Your task to perform on an android device: create a new album in the google photos Image 0: 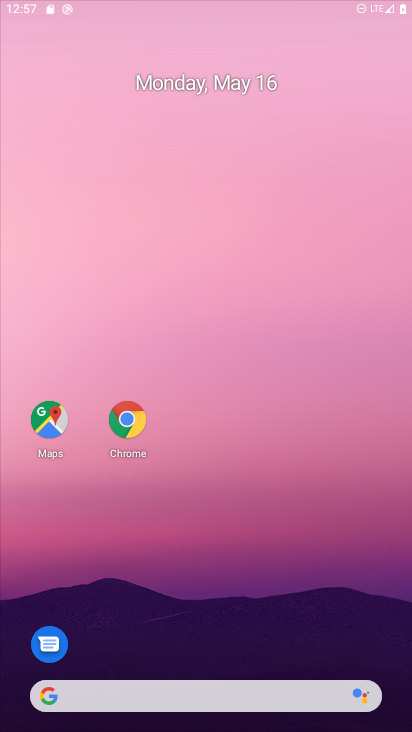
Step 0: drag from (218, 627) to (223, 189)
Your task to perform on an android device: create a new album in the google photos Image 1: 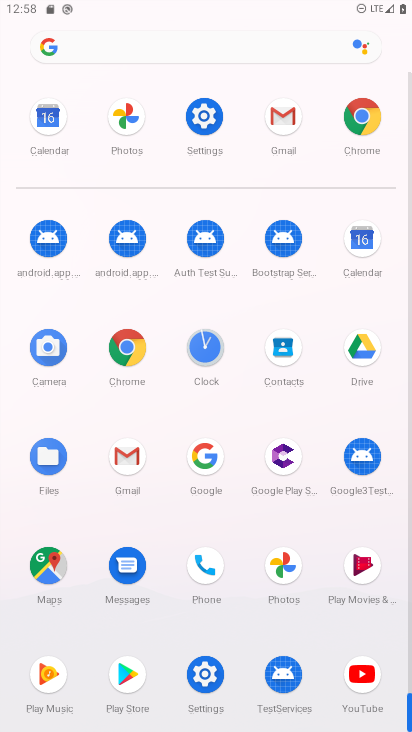
Step 1: click (277, 560)
Your task to perform on an android device: create a new album in the google photos Image 2: 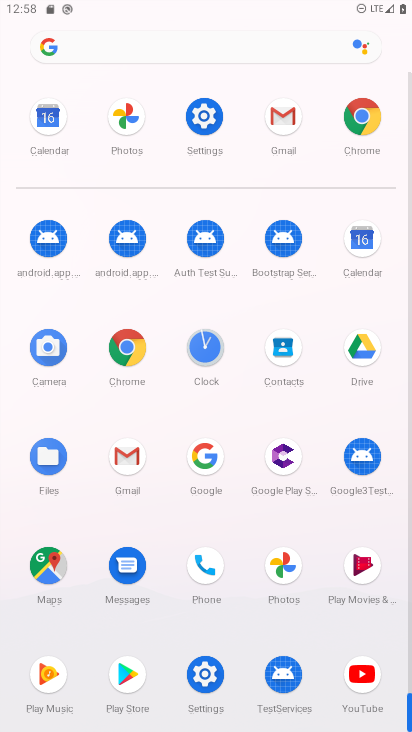
Step 2: click (277, 560)
Your task to perform on an android device: create a new album in the google photos Image 3: 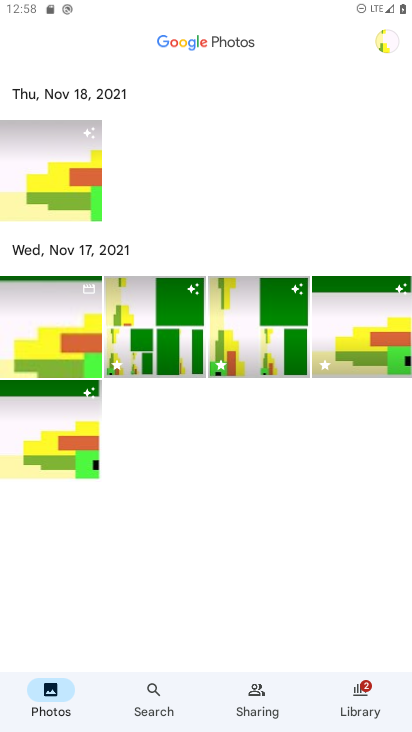
Step 3: click (365, 707)
Your task to perform on an android device: create a new album in the google photos Image 4: 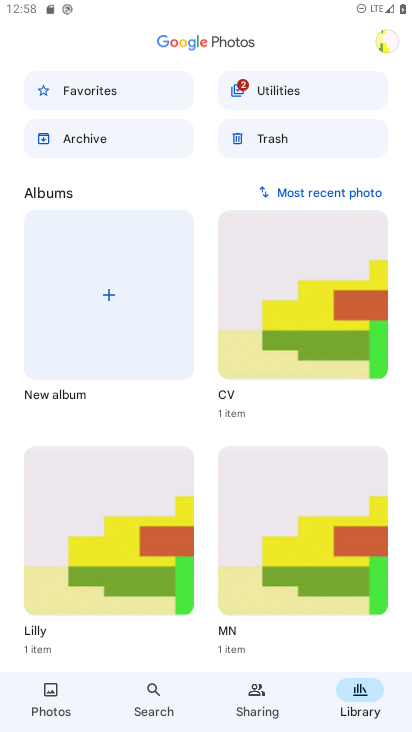
Step 4: click (99, 294)
Your task to perform on an android device: create a new album in the google photos Image 5: 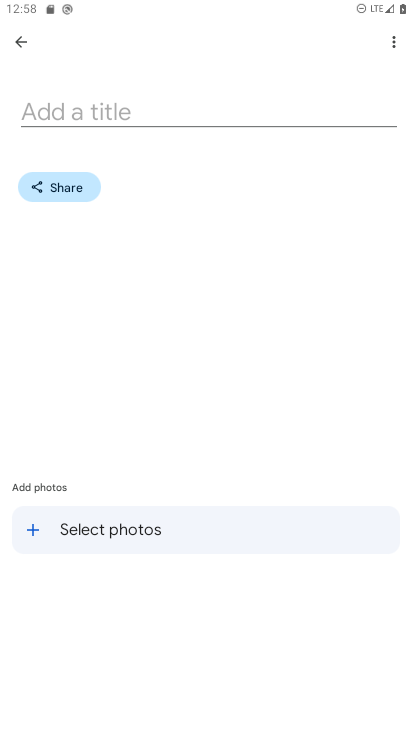
Step 5: click (151, 85)
Your task to perform on an android device: create a new album in the google photos Image 6: 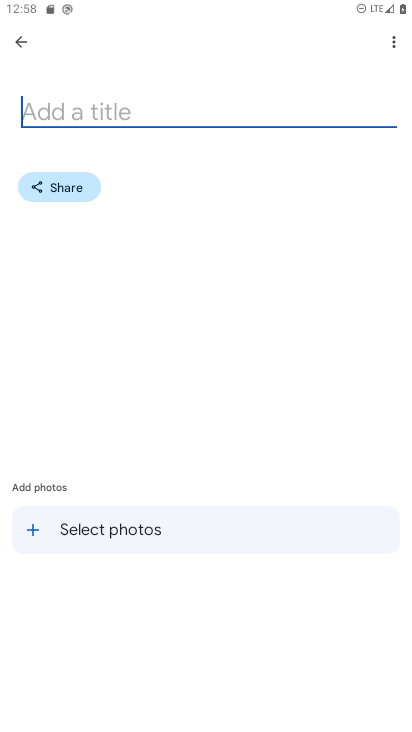
Step 6: click (129, 97)
Your task to perform on an android device: create a new album in the google photos Image 7: 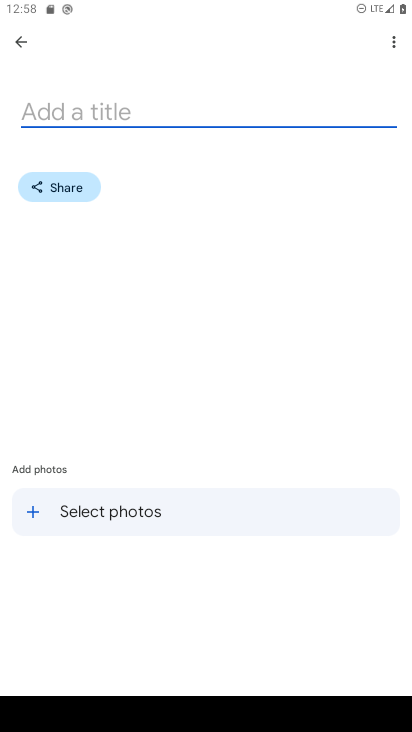
Step 7: type "nmkj"
Your task to perform on an android device: create a new album in the google photos Image 8: 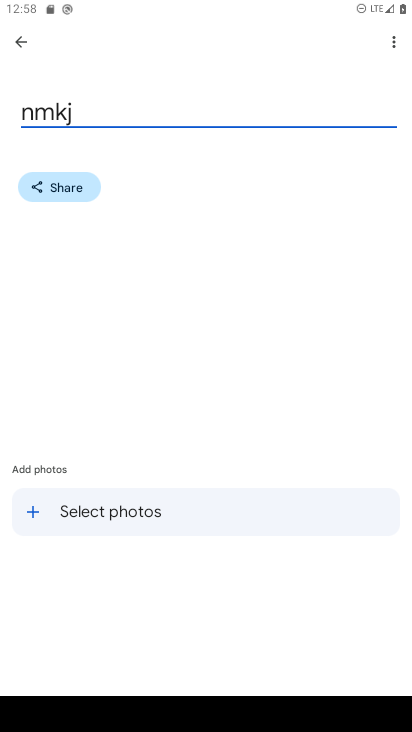
Step 8: click (36, 510)
Your task to perform on an android device: create a new album in the google photos Image 9: 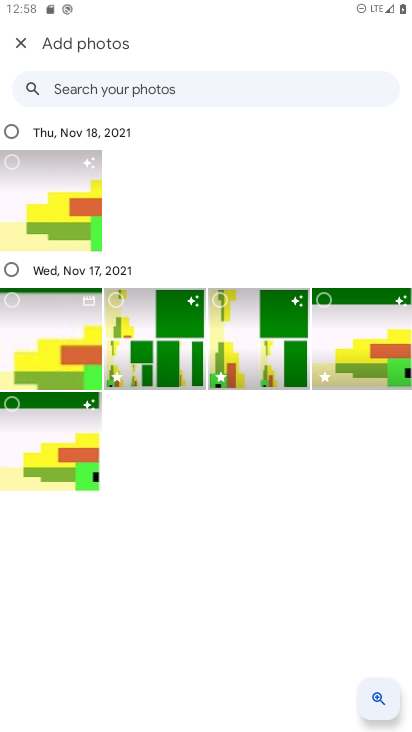
Step 9: click (22, 353)
Your task to perform on an android device: create a new album in the google photos Image 10: 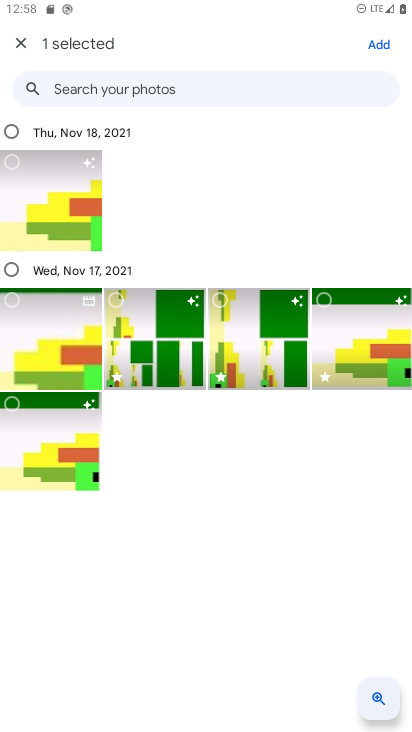
Step 10: click (178, 348)
Your task to perform on an android device: create a new album in the google photos Image 11: 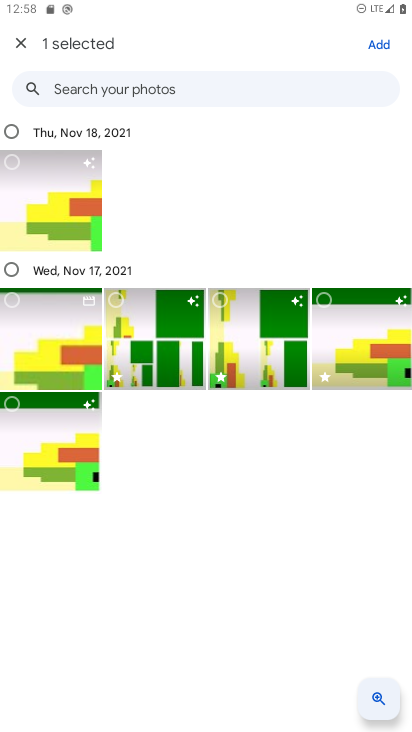
Step 11: click (259, 346)
Your task to perform on an android device: create a new album in the google photos Image 12: 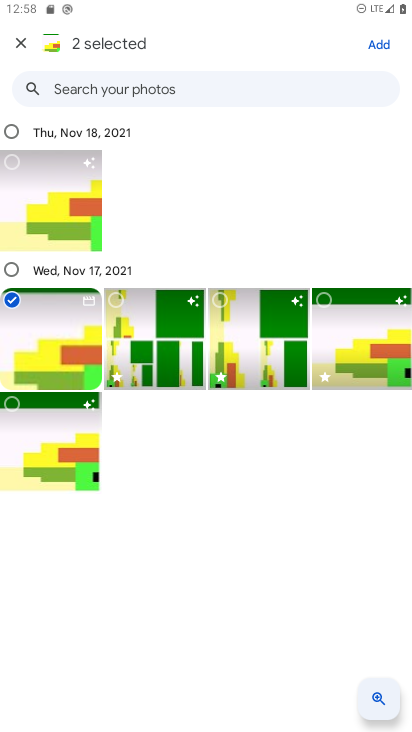
Step 12: click (369, 42)
Your task to perform on an android device: create a new album in the google photos Image 13: 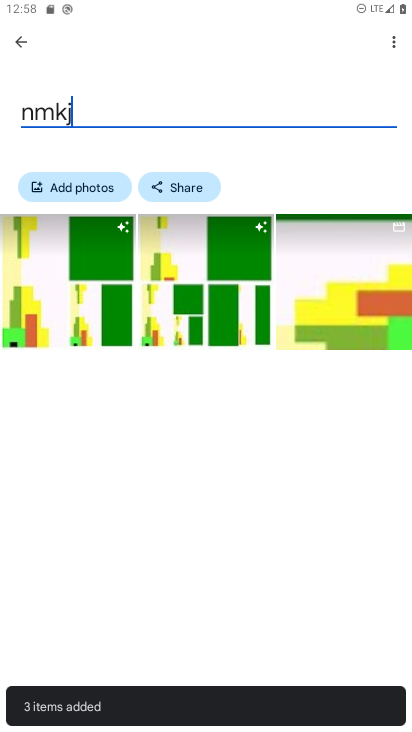
Step 13: task complete